Your task to perform on an android device: Open Google Image 0: 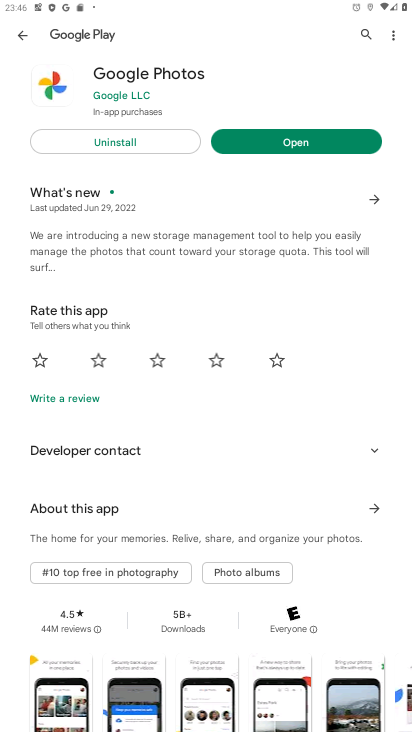
Step 0: press home button
Your task to perform on an android device: Open Google Image 1: 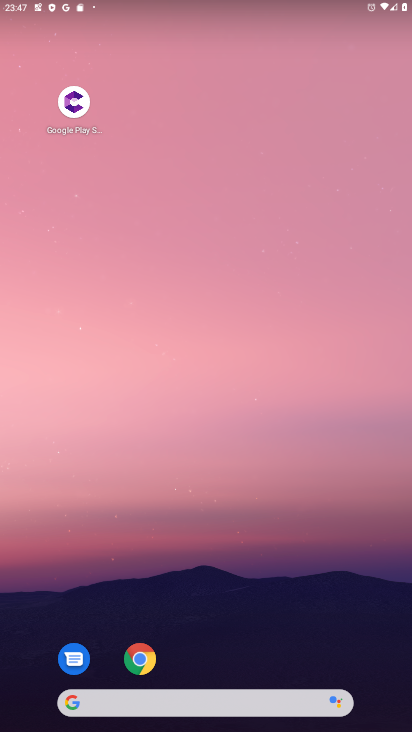
Step 1: drag from (219, 655) to (216, 64)
Your task to perform on an android device: Open Google Image 2: 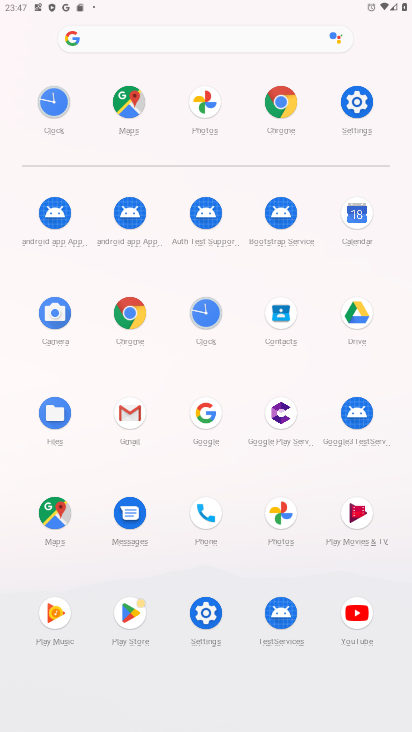
Step 2: click (197, 440)
Your task to perform on an android device: Open Google Image 3: 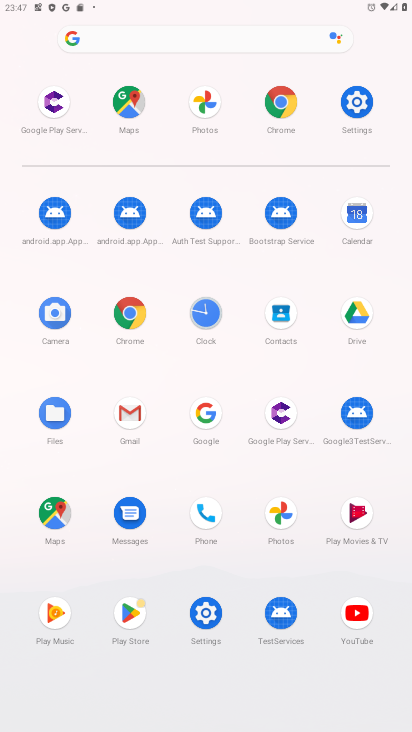
Step 3: click (201, 416)
Your task to perform on an android device: Open Google Image 4: 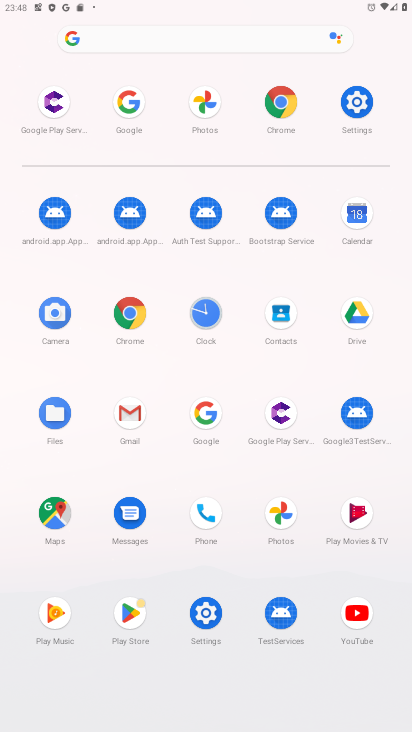
Step 4: click (214, 413)
Your task to perform on an android device: Open Google Image 5: 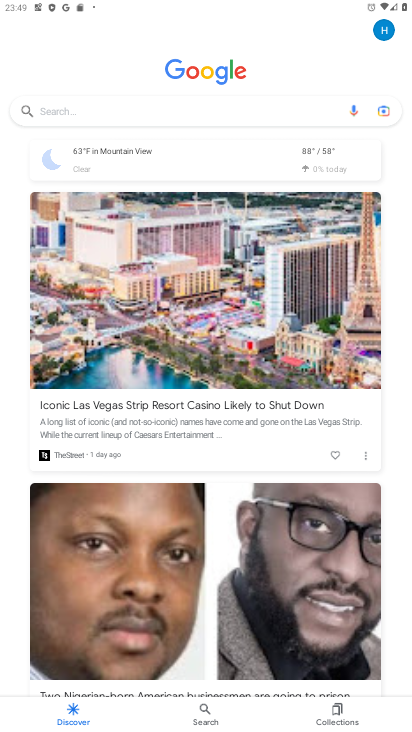
Step 5: task complete